Your task to perform on an android device: Open Reddit.com Image 0: 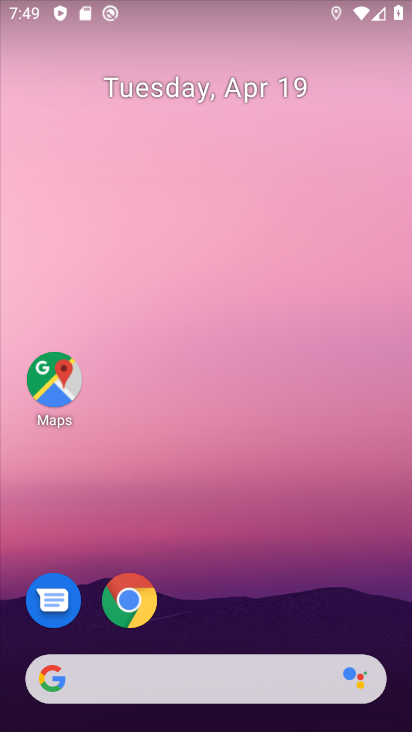
Step 0: drag from (194, 430) to (227, 100)
Your task to perform on an android device: Open Reddit.com Image 1: 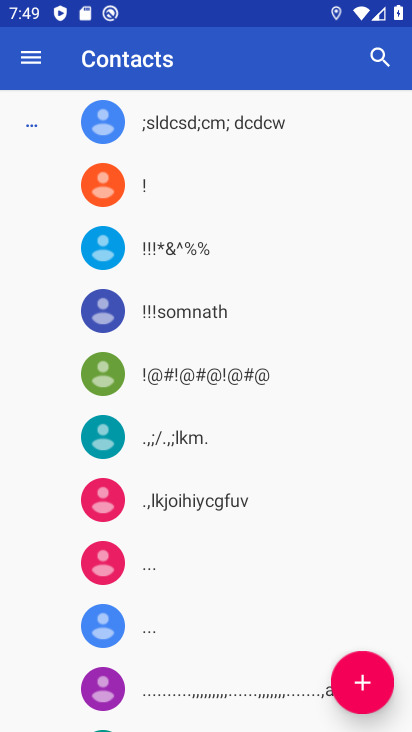
Step 1: press back button
Your task to perform on an android device: Open Reddit.com Image 2: 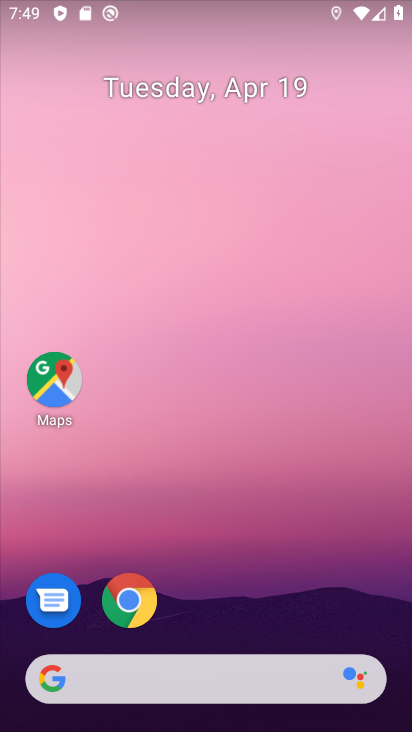
Step 2: drag from (202, 633) to (271, 137)
Your task to perform on an android device: Open Reddit.com Image 3: 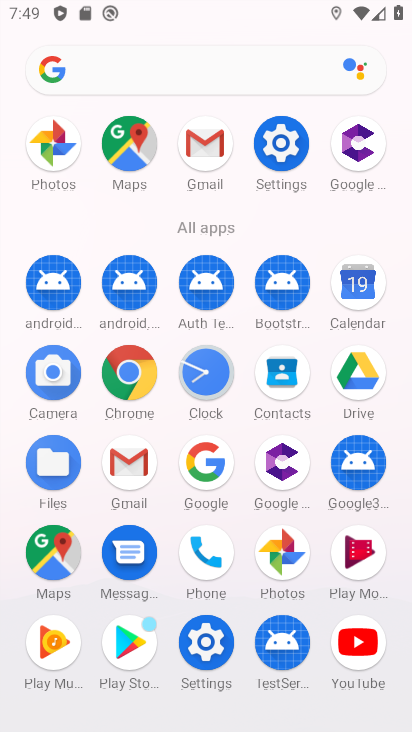
Step 3: click (127, 373)
Your task to perform on an android device: Open Reddit.com Image 4: 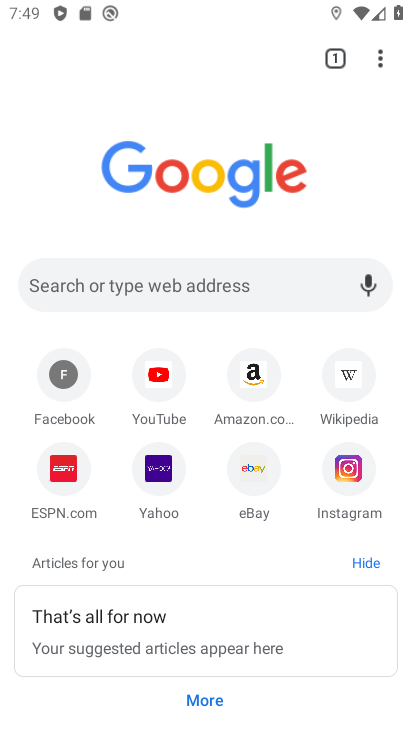
Step 4: click (121, 290)
Your task to perform on an android device: Open Reddit.com Image 5: 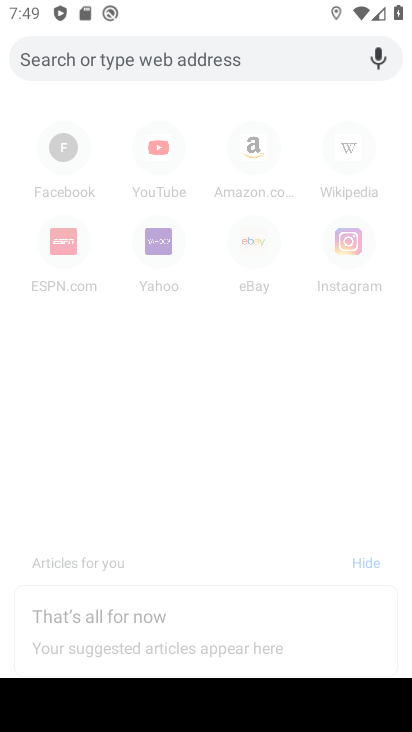
Step 5: type "Reddit.com"
Your task to perform on an android device: Open Reddit.com Image 6: 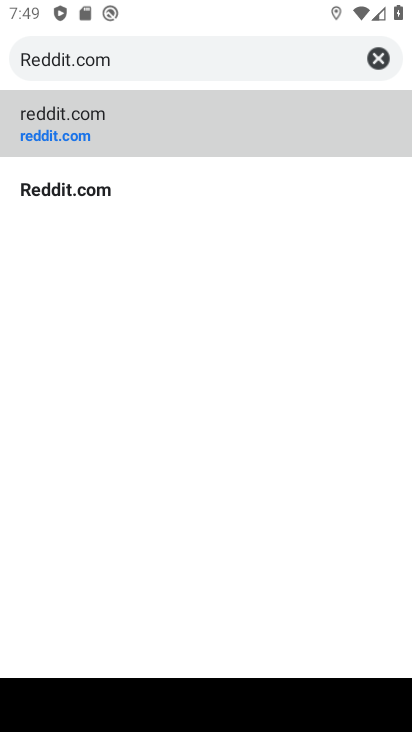
Step 6: click (119, 138)
Your task to perform on an android device: Open Reddit.com Image 7: 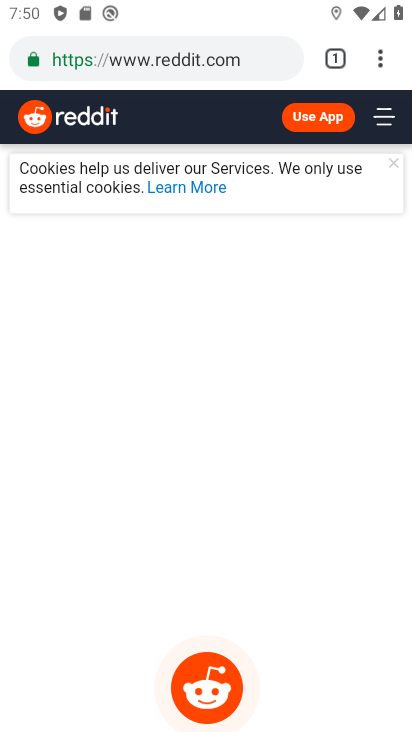
Step 7: task complete